Your task to perform on an android device: check the backup settings in the google photos Image 0: 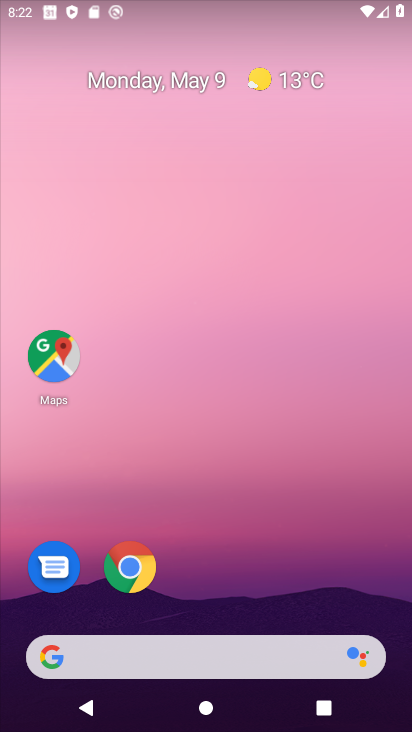
Step 0: drag from (260, 535) to (235, 7)
Your task to perform on an android device: check the backup settings in the google photos Image 1: 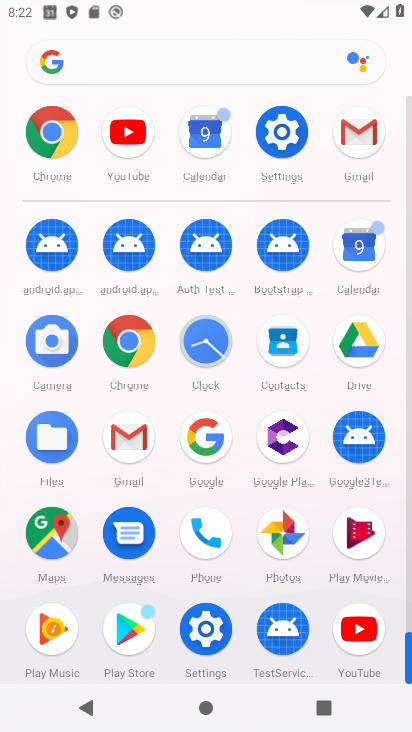
Step 1: click (283, 525)
Your task to perform on an android device: check the backup settings in the google photos Image 2: 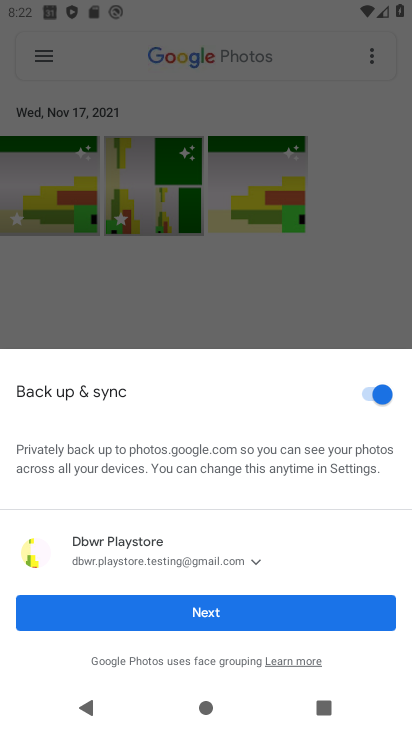
Step 2: click (298, 611)
Your task to perform on an android device: check the backup settings in the google photos Image 3: 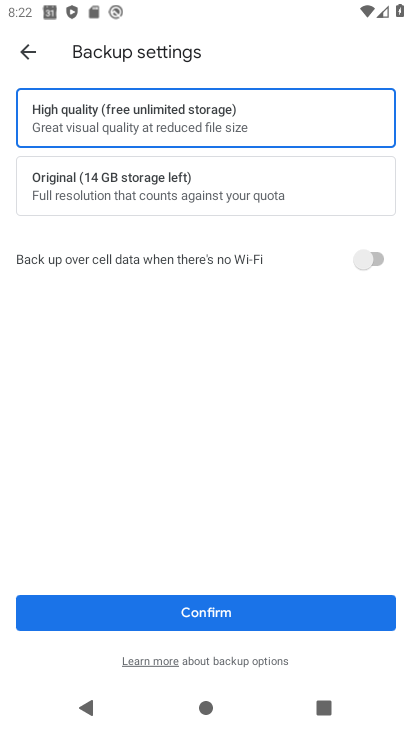
Step 3: task complete